Your task to perform on an android device: Open the stopwatch Image 0: 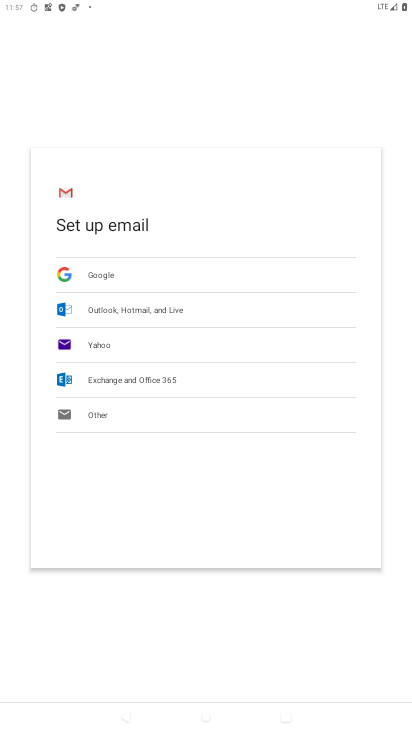
Step 0: press home button
Your task to perform on an android device: Open the stopwatch Image 1: 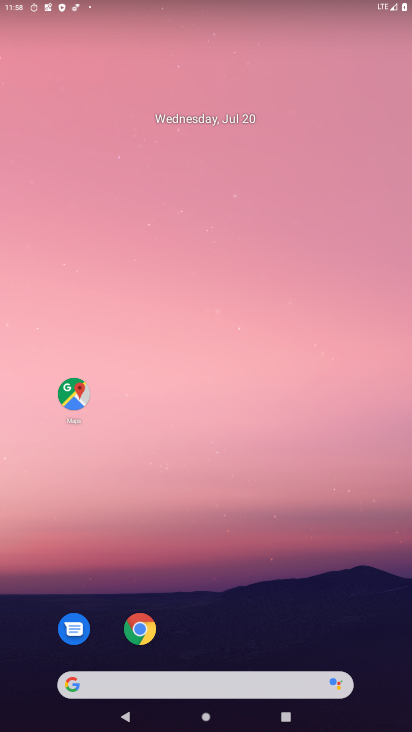
Step 1: drag from (268, 608) to (242, 131)
Your task to perform on an android device: Open the stopwatch Image 2: 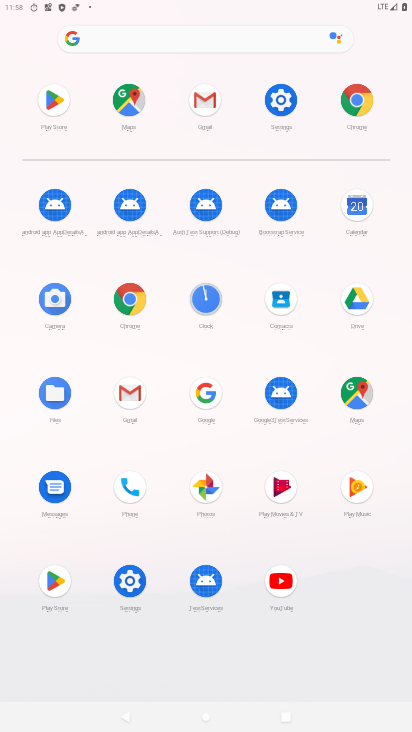
Step 2: click (208, 293)
Your task to perform on an android device: Open the stopwatch Image 3: 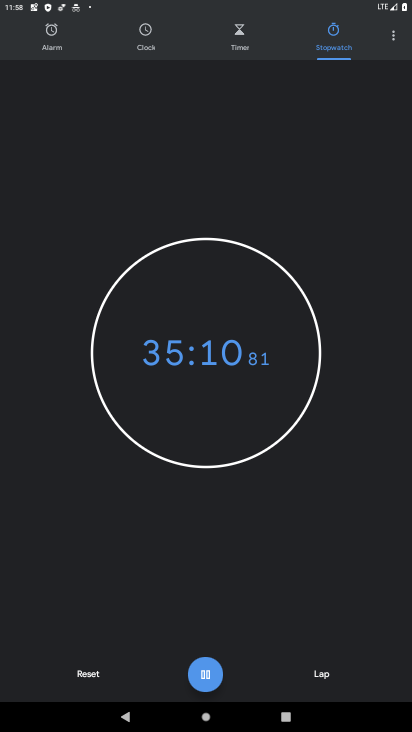
Step 3: task complete